Your task to perform on an android device: Search for the best selling vase on Crate & Barrel Image 0: 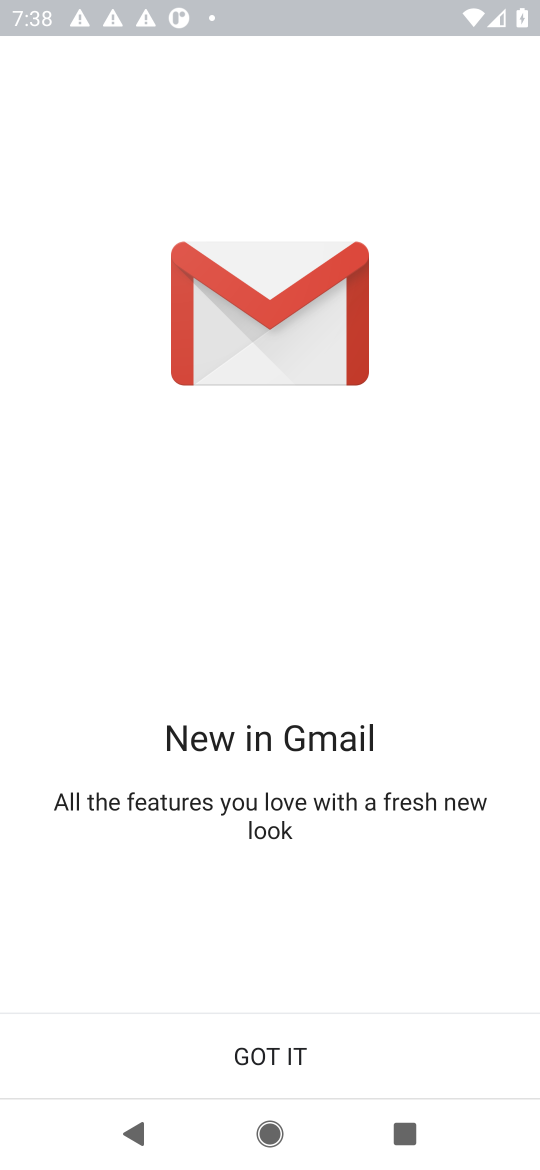
Step 0: press home button
Your task to perform on an android device: Search for the best selling vase on Crate & Barrel Image 1: 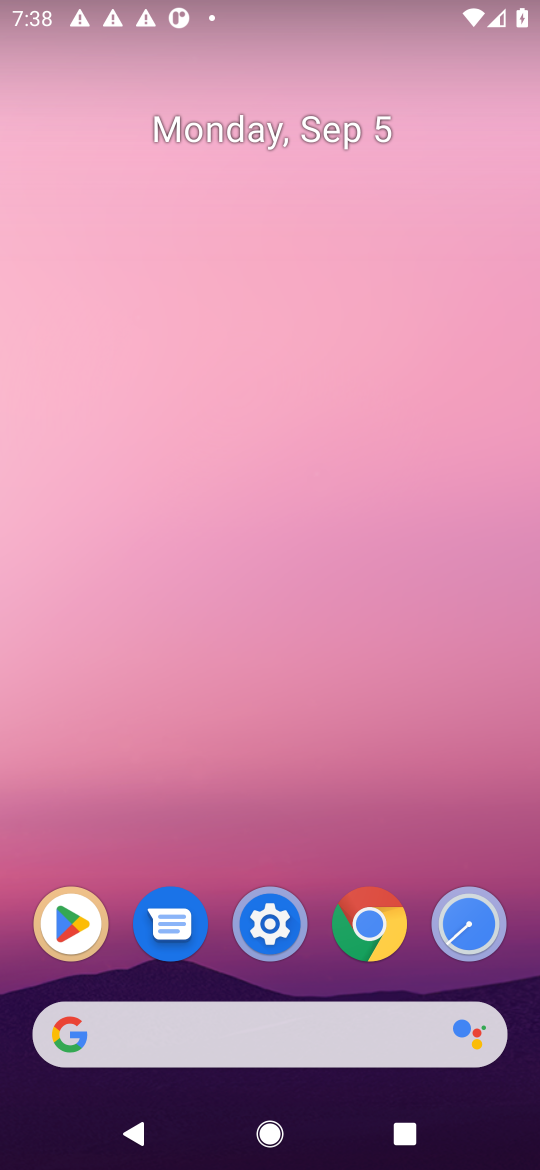
Step 1: click (314, 1037)
Your task to perform on an android device: Search for the best selling vase on Crate & Barrel Image 2: 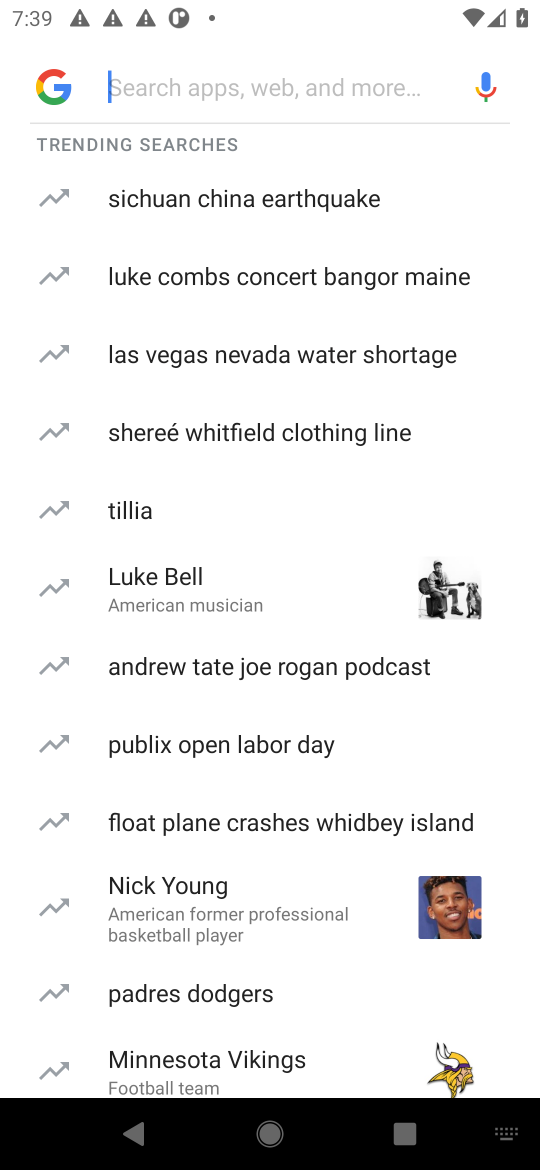
Step 2: type "crate barrel"
Your task to perform on an android device: Search for the best selling vase on Crate & Barrel Image 3: 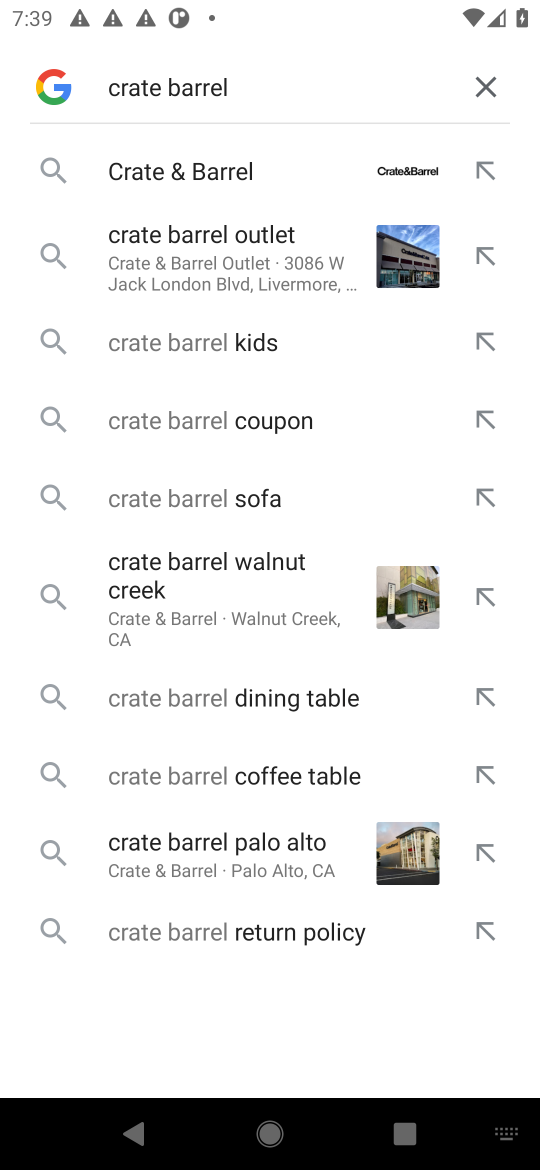
Step 3: press enter
Your task to perform on an android device: Search for the best selling vase on Crate & Barrel Image 4: 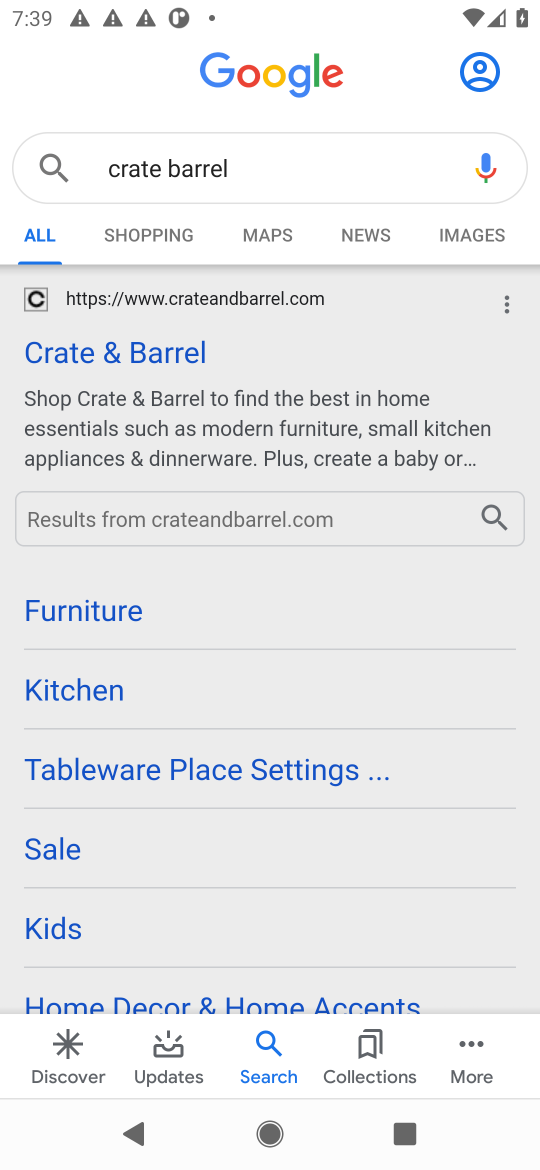
Step 4: click (78, 341)
Your task to perform on an android device: Search for the best selling vase on Crate & Barrel Image 5: 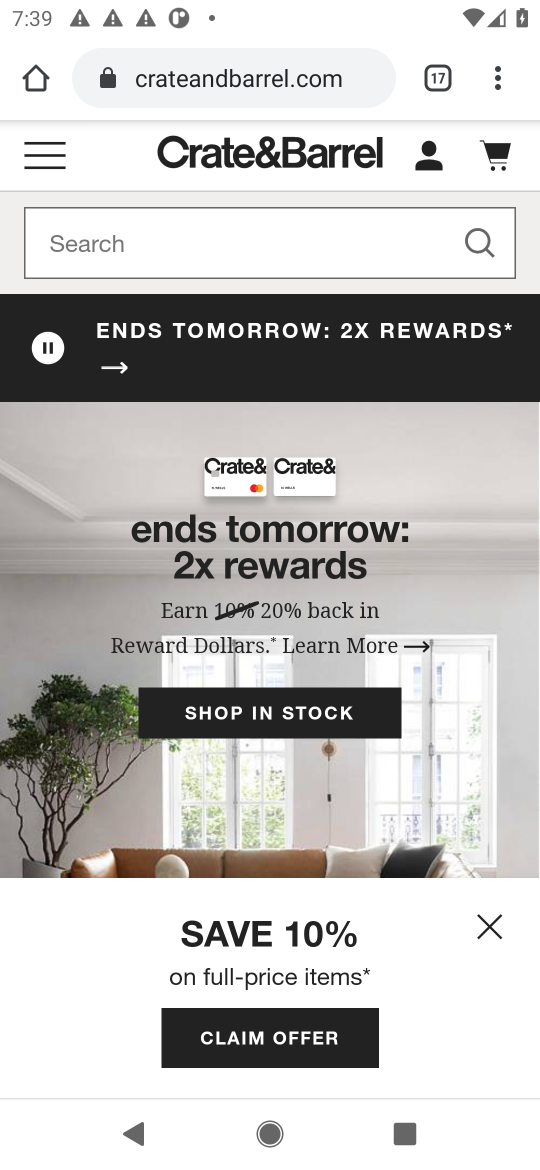
Step 5: click (249, 237)
Your task to perform on an android device: Search for the best selling vase on Crate & Barrel Image 6: 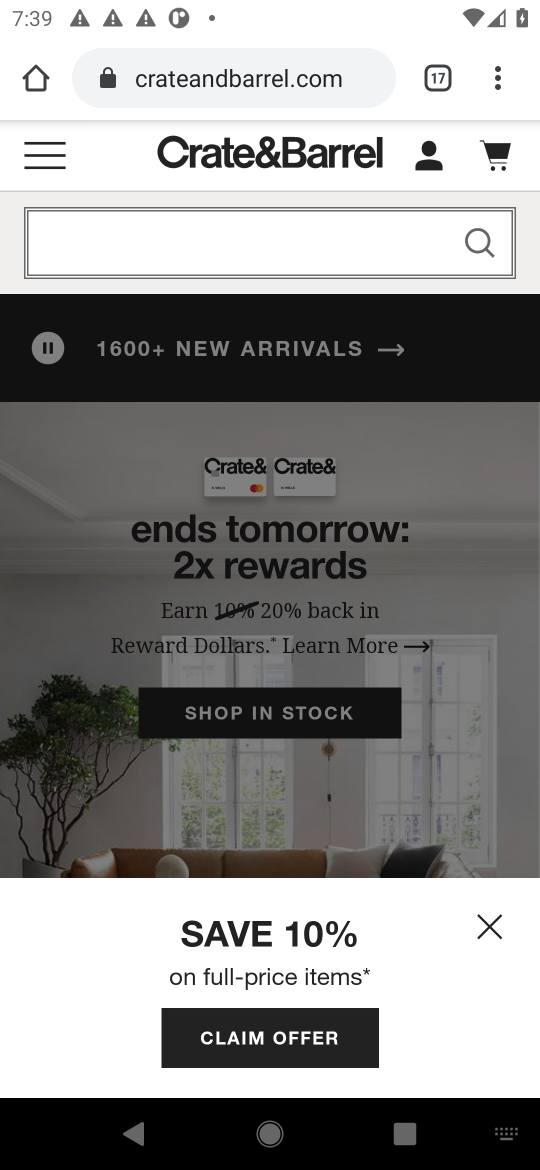
Step 6: type "best selling vase"
Your task to perform on an android device: Search for the best selling vase on Crate & Barrel Image 7: 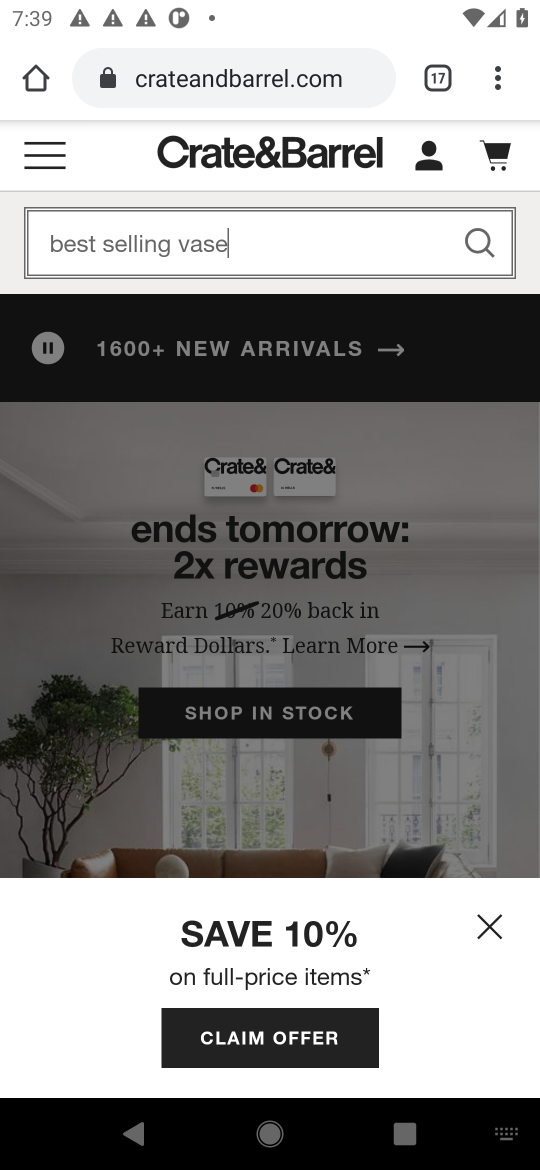
Step 7: press enter
Your task to perform on an android device: Search for the best selling vase on Crate & Barrel Image 8: 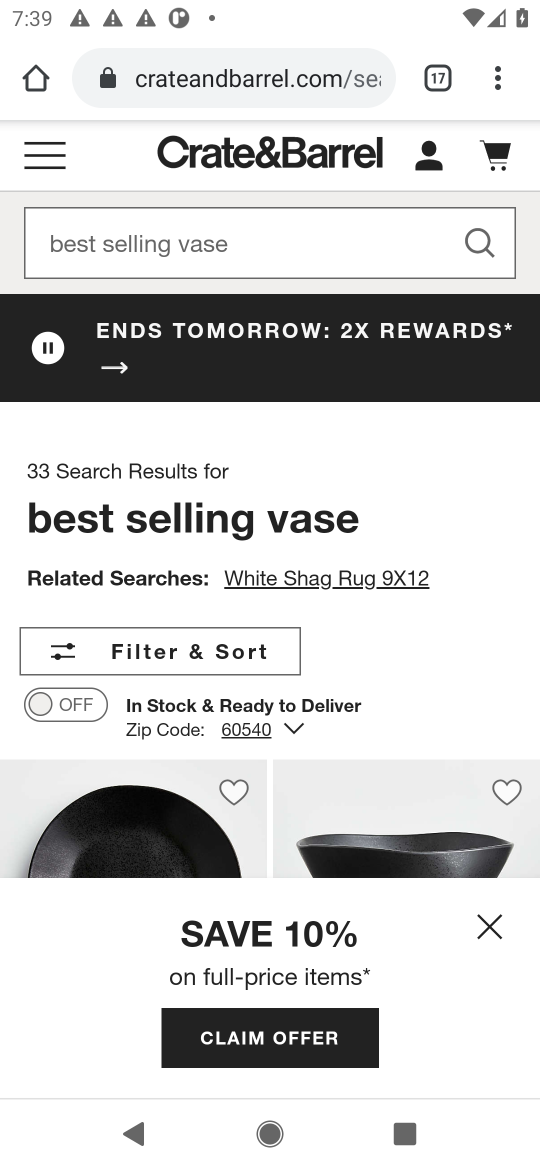
Step 8: click (484, 914)
Your task to perform on an android device: Search for the best selling vase on Crate & Barrel Image 9: 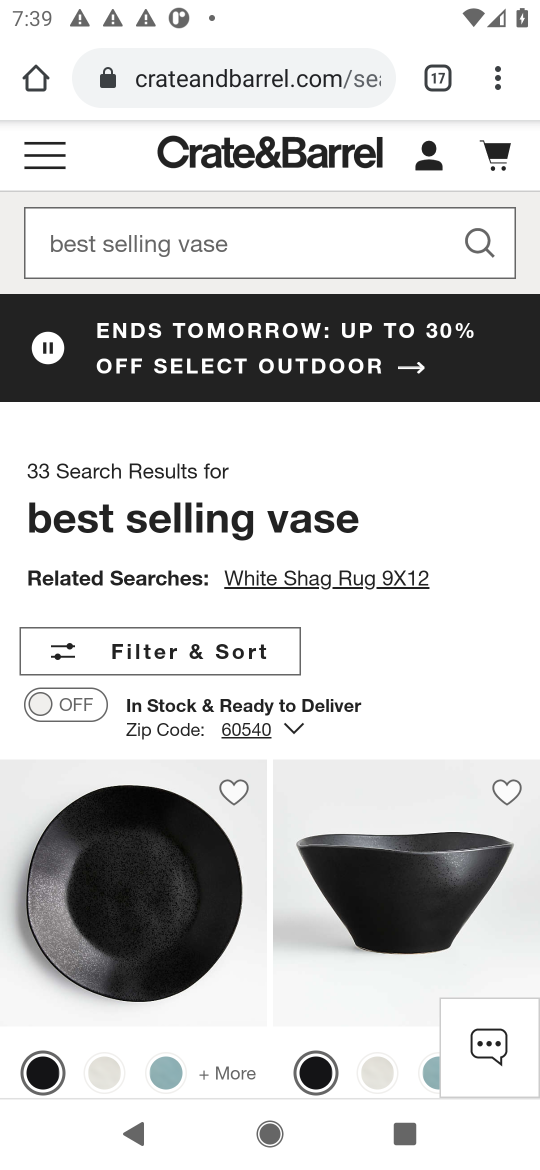
Step 9: task complete